Your task to perform on an android device: open wifi settings Image 0: 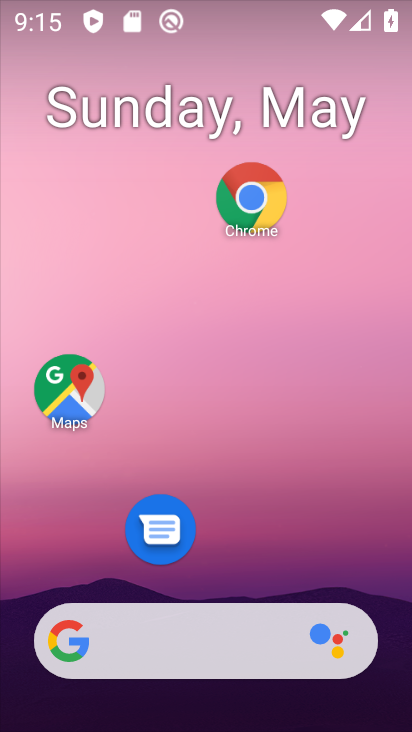
Step 0: drag from (291, 555) to (267, 43)
Your task to perform on an android device: open wifi settings Image 1: 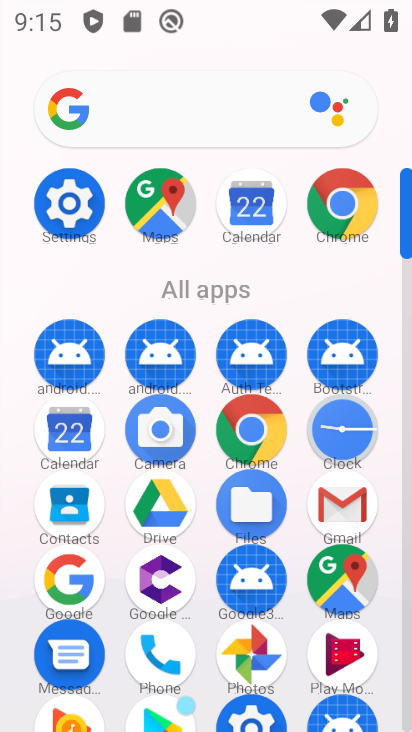
Step 1: click (67, 203)
Your task to perform on an android device: open wifi settings Image 2: 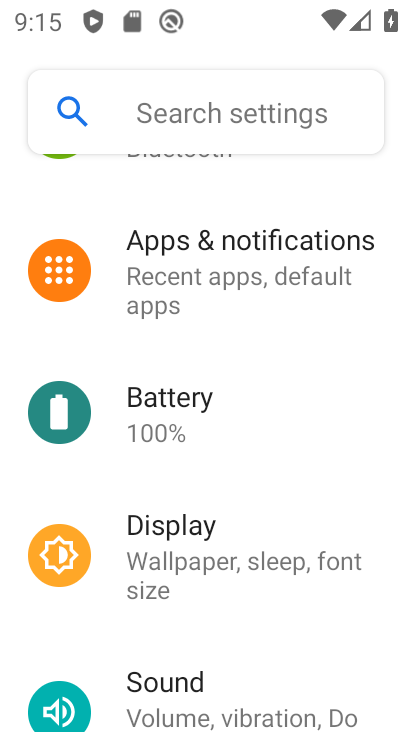
Step 2: drag from (223, 199) to (245, 562)
Your task to perform on an android device: open wifi settings Image 3: 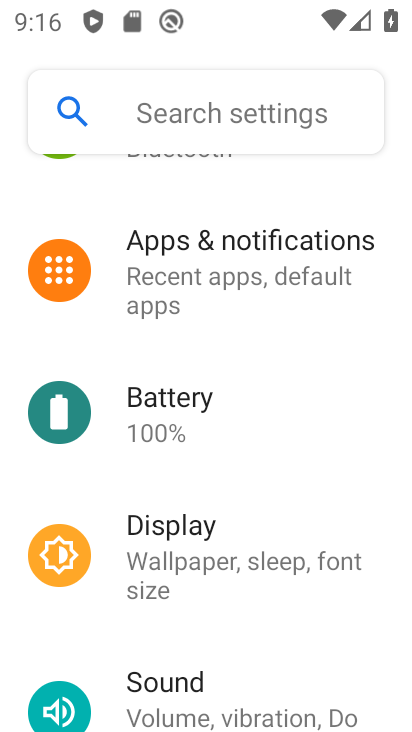
Step 3: drag from (212, 195) to (261, 679)
Your task to perform on an android device: open wifi settings Image 4: 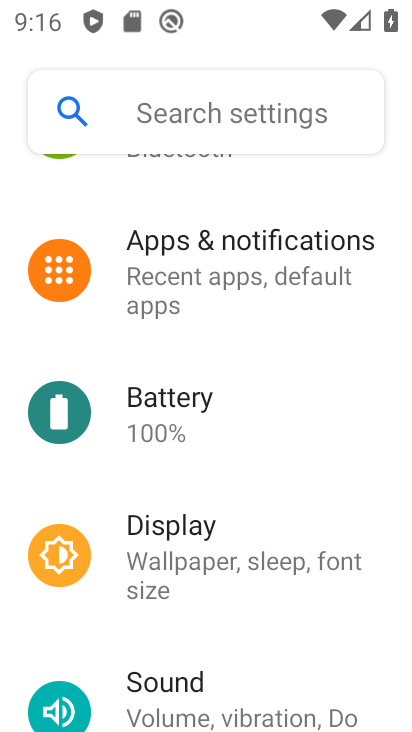
Step 4: drag from (212, 192) to (316, 619)
Your task to perform on an android device: open wifi settings Image 5: 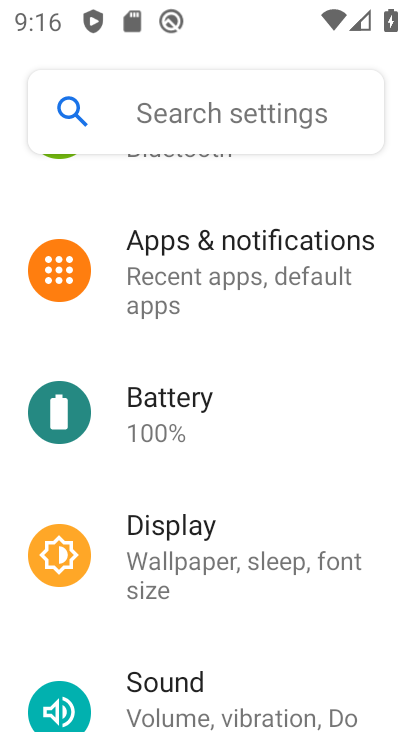
Step 5: drag from (223, 173) to (158, 713)
Your task to perform on an android device: open wifi settings Image 6: 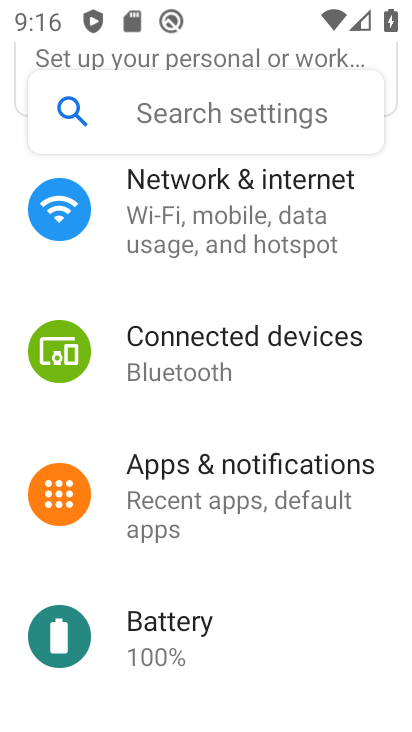
Step 6: click (211, 215)
Your task to perform on an android device: open wifi settings Image 7: 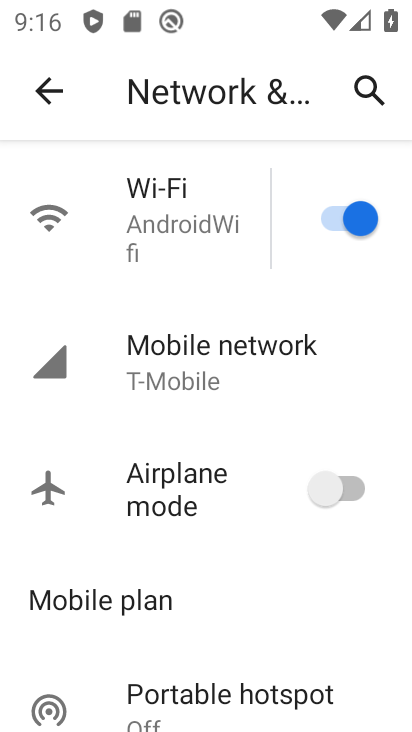
Step 7: click (178, 215)
Your task to perform on an android device: open wifi settings Image 8: 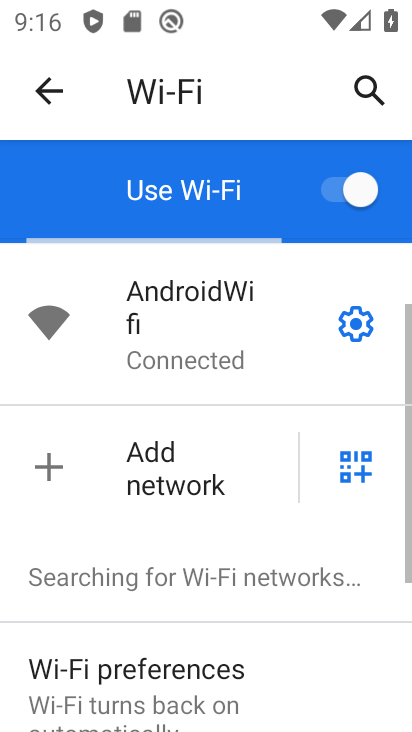
Step 8: click (353, 312)
Your task to perform on an android device: open wifi settings Image 9: 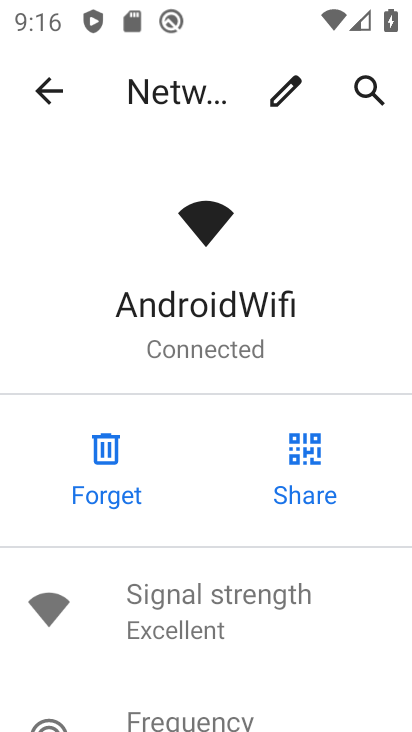
Step 9: task complete